Your task to perform on an android device: manage bookmarks in the chrome app Image 0: 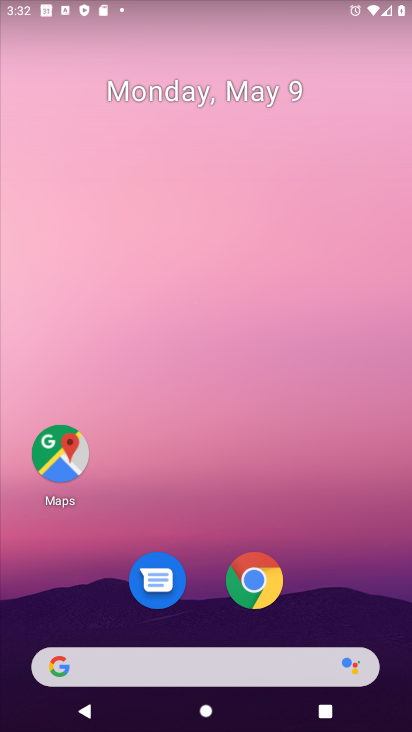
Step 0: click (258, 591)
Your task to perform on an android device: manage bookmarks in the chrome app Image 1: 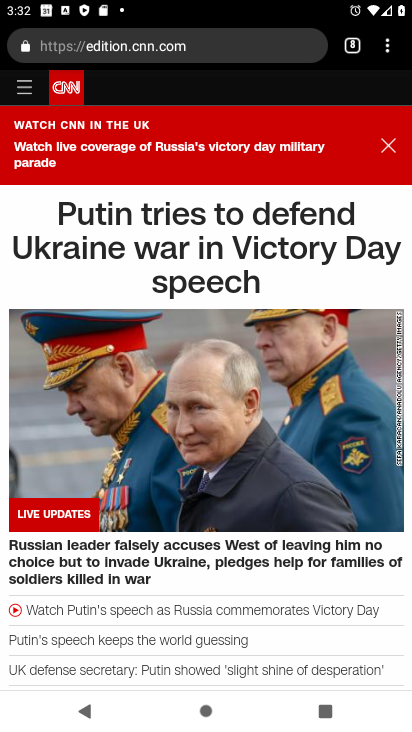
Step 1: click (377, 44)
Your task to perform on an android device: manage bookmarks in the chrome app Image 2: 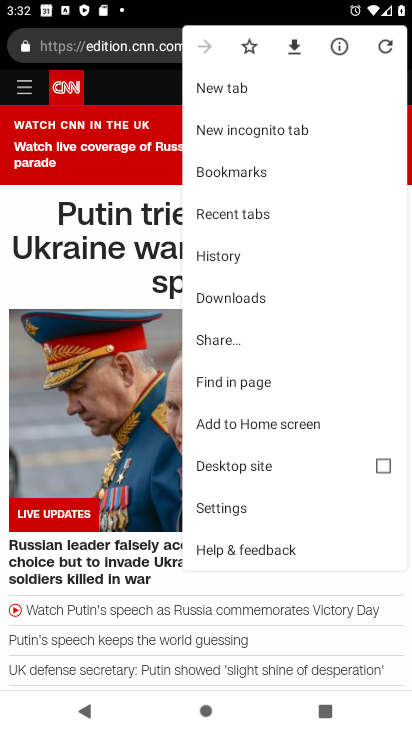
Step 2: click (261, 173)
Your task to perform on an android device: manage bookmarks in the chrome app Image 3: 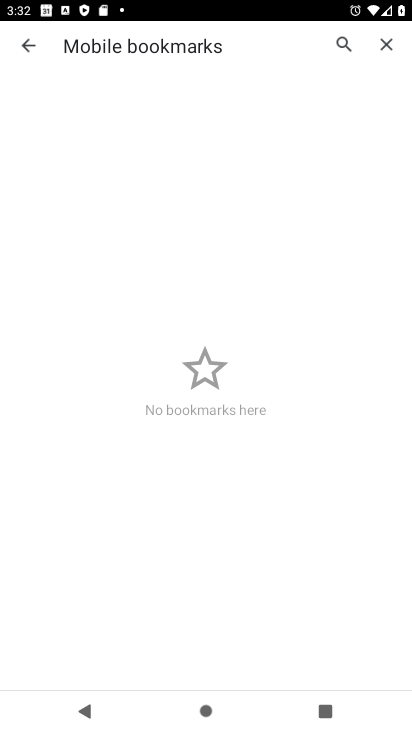
Step 3: task complete